Your task to perform on an android device: Open the map Image 0: 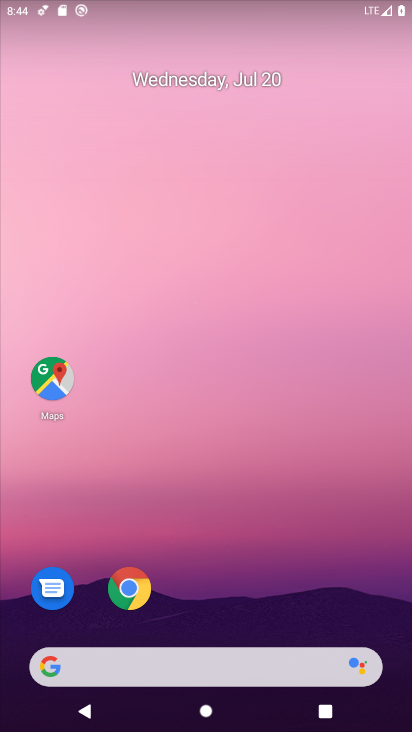
Step 0: press home button
Your task to perform on an android device: Open the map Image 1: 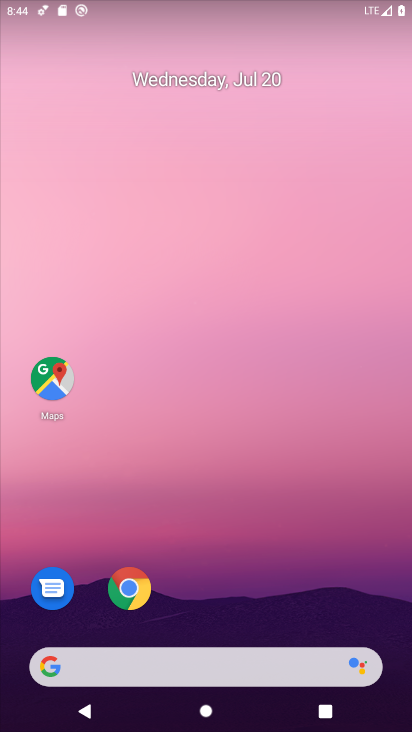
Step 1: click (48, 374)
Your task to perform on an android device: Open the map Image 2: 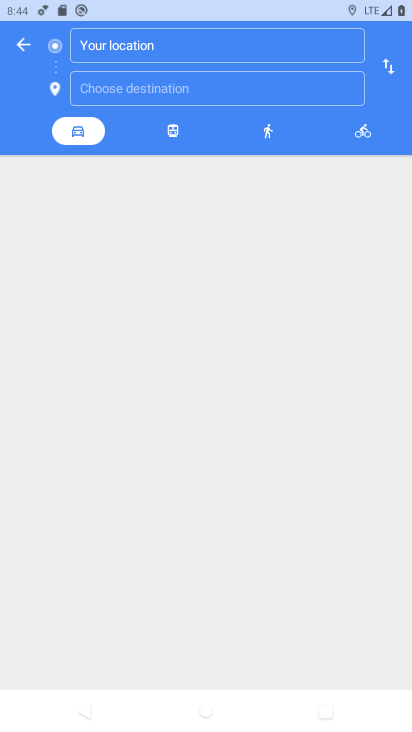
Step 2: click (26, 44)
Your task to perform on an android device: Open the map Image 3: 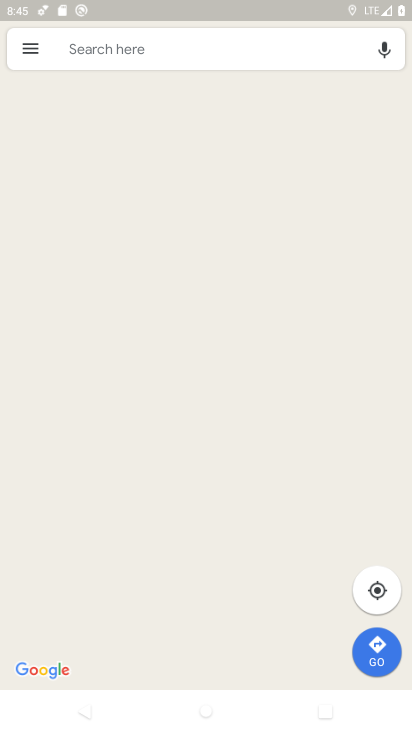
Step 3: task complete